Your task to perform on an android device: Go to settings Image 0: 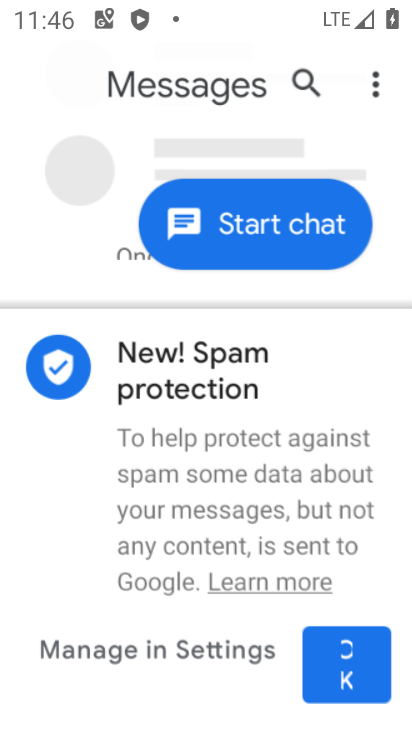
Step 0: drag from (398, 651) to (313, 145)
Your task to perform on an android device: Go to settings Image 1: 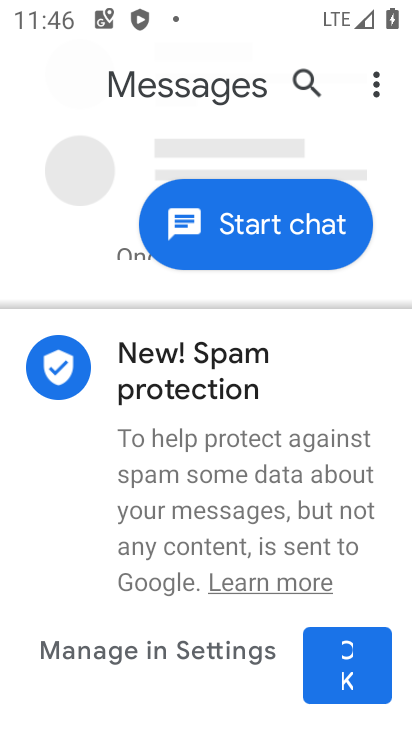
Step 1: press home button
Your task to perform on an android device: Go to settings Image 2: 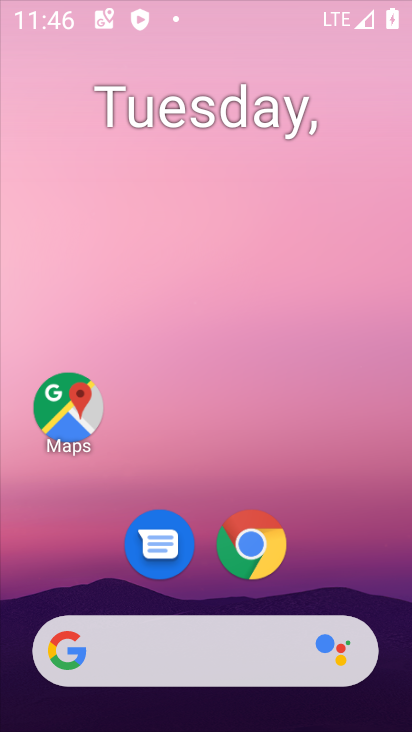
Step 2: drag from (385, 644) to (294, 65)
Your task to perform on an android device: Go to settings Image 3: 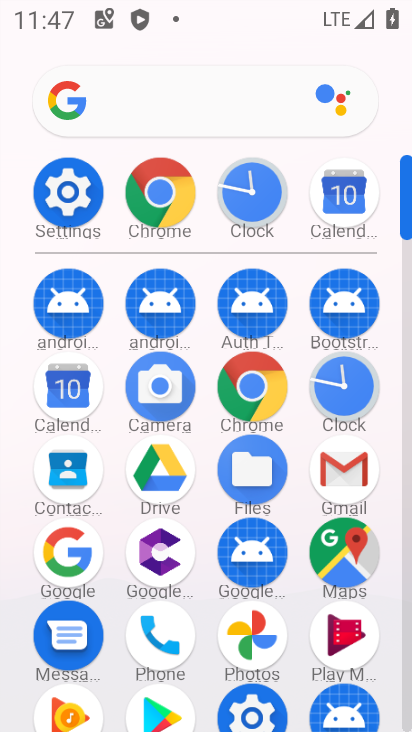
Step 3: click (86, 201)
Your task to perform on an android device: Go to settings Image 4: 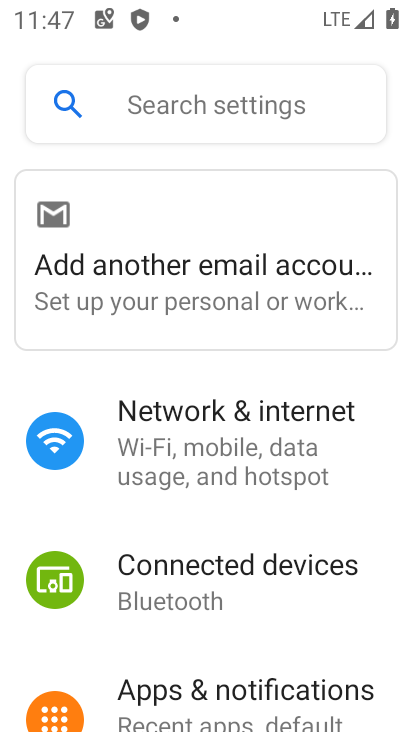
Step 4: task complete